Your task to perform on an android device: install app "Spotify: Music and Podcasts" Image 0: 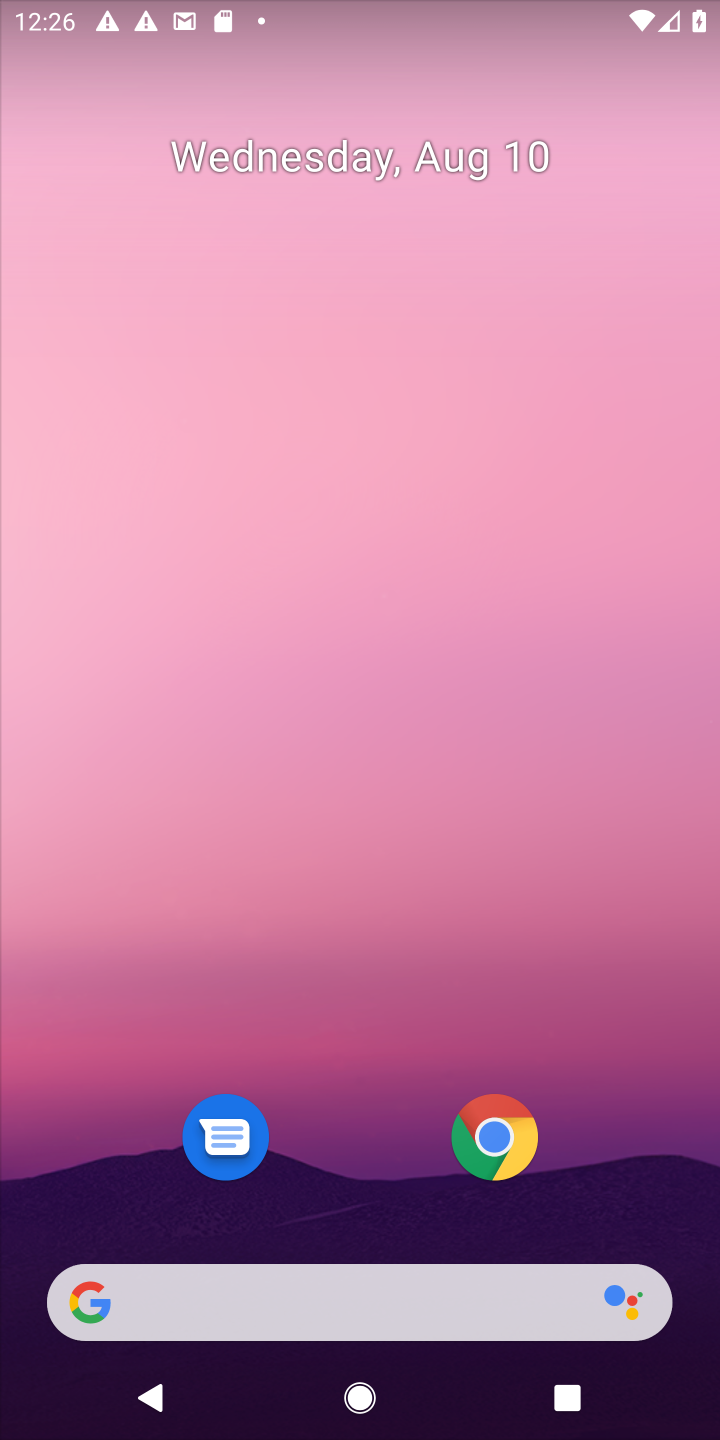
Step 0: drag from (371, 1211) to (421, 312)
Your task to perform on an android device: install app "Spotify: Music and Podcasts" Image 1: 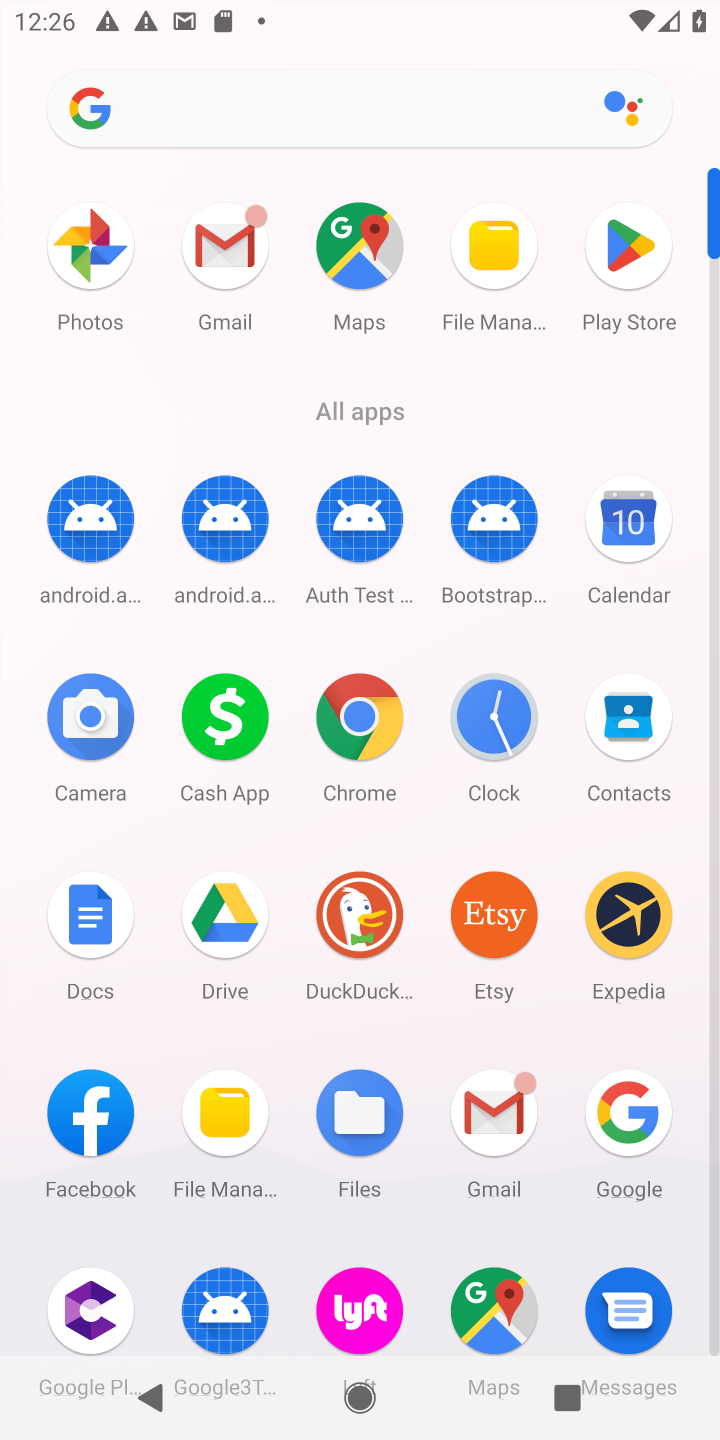
Step 1: click (635, 249)
Your task to perform on an android device: install app "Spotify: Music and Podcasts" Image 2: 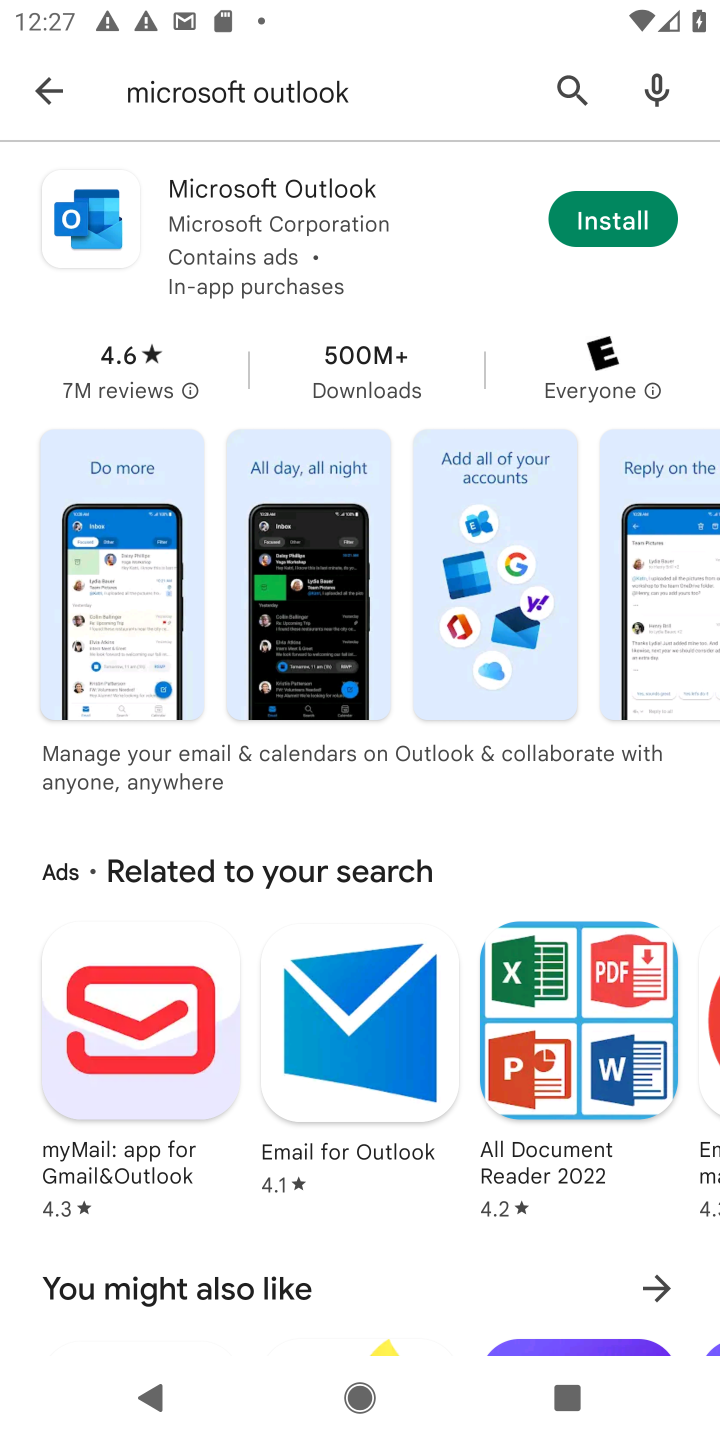
Step 2: click (560, 94)
Your task to perform on an android device: install app "Spotify: Music and Podcasts" Image 3: 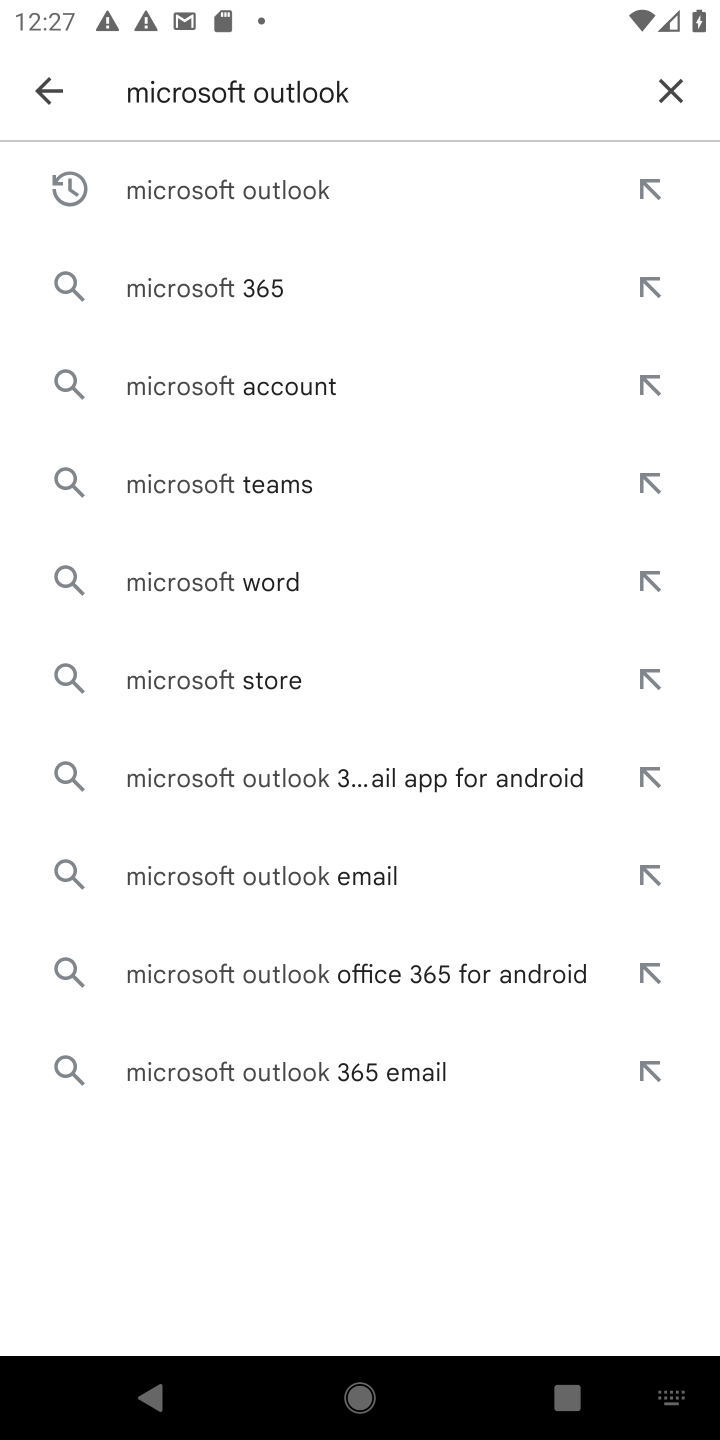
Step 3: click (671, 100)
Your task to perform on an android device: install app "Spotify: Music and Podcasts" Image 4: 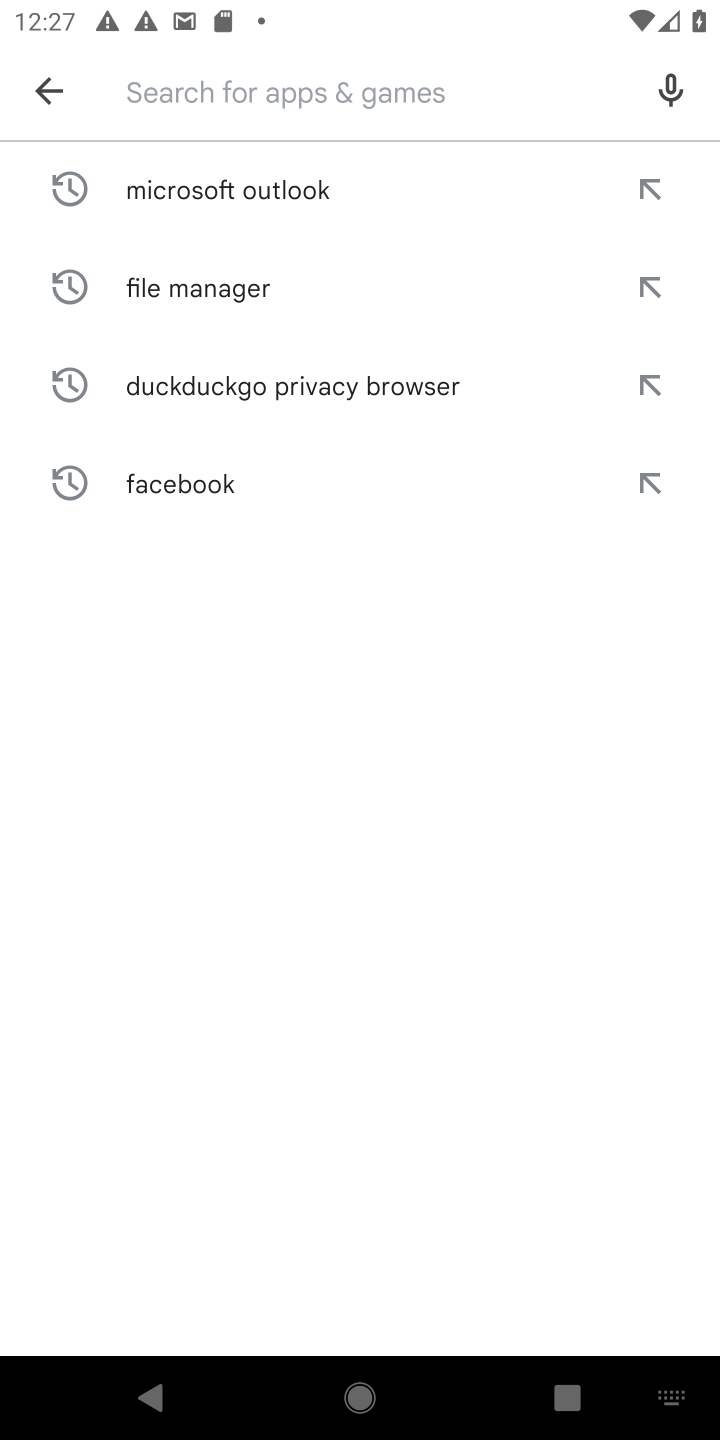
Step 4: type "Spotify: Music and Podcasts"
Your task to perform on an android device: install app "Spotify: Music and Podcasts" Image 5: 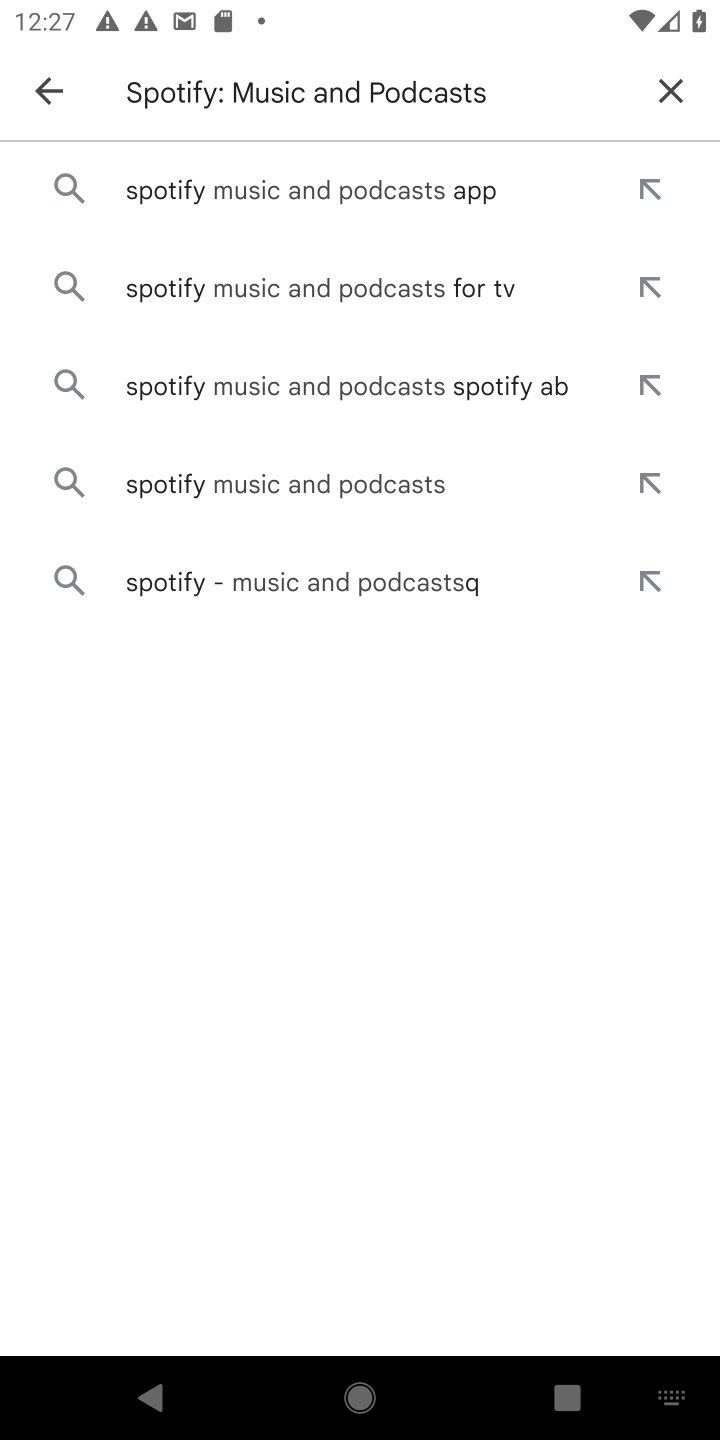
Step 5: click (388, 199)
Your task to perform on an android device: install app "Spotify: Music and Podcasts" Image 6: 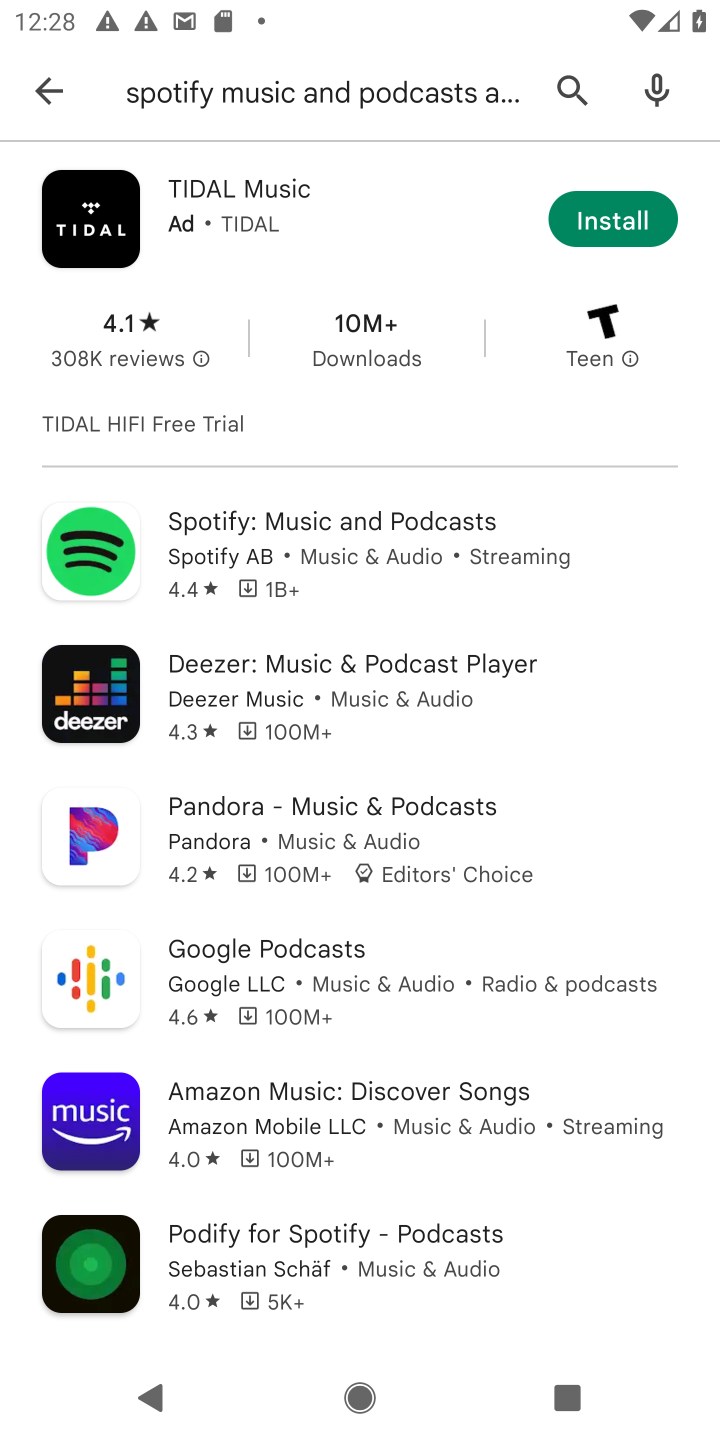
Step 6: click (315, 547)
Your task to perform on an android device: install app "Spotify: Music and Podcasts" Image 7: 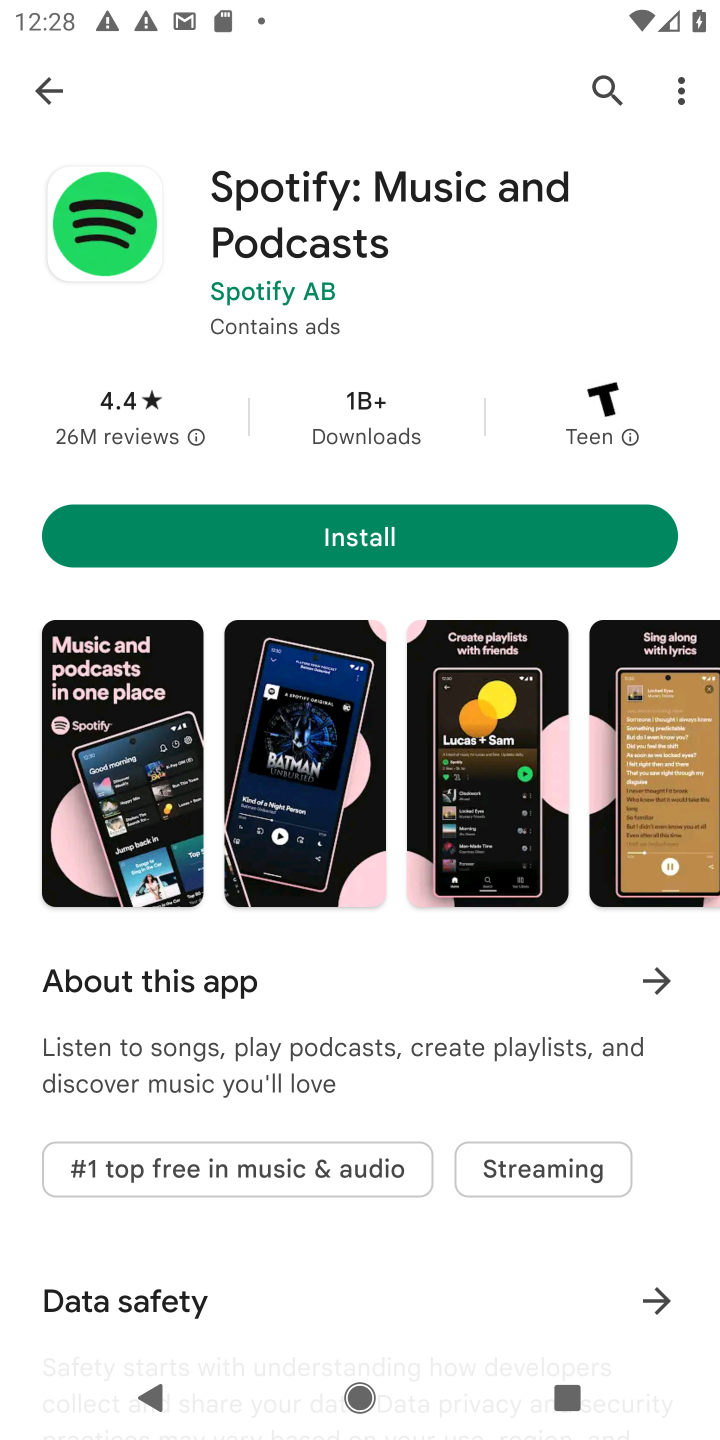
Step 7: click (366, 536)
Your task to perform on an android device: install app "Spotify: Music and Podcasts" Image 8: 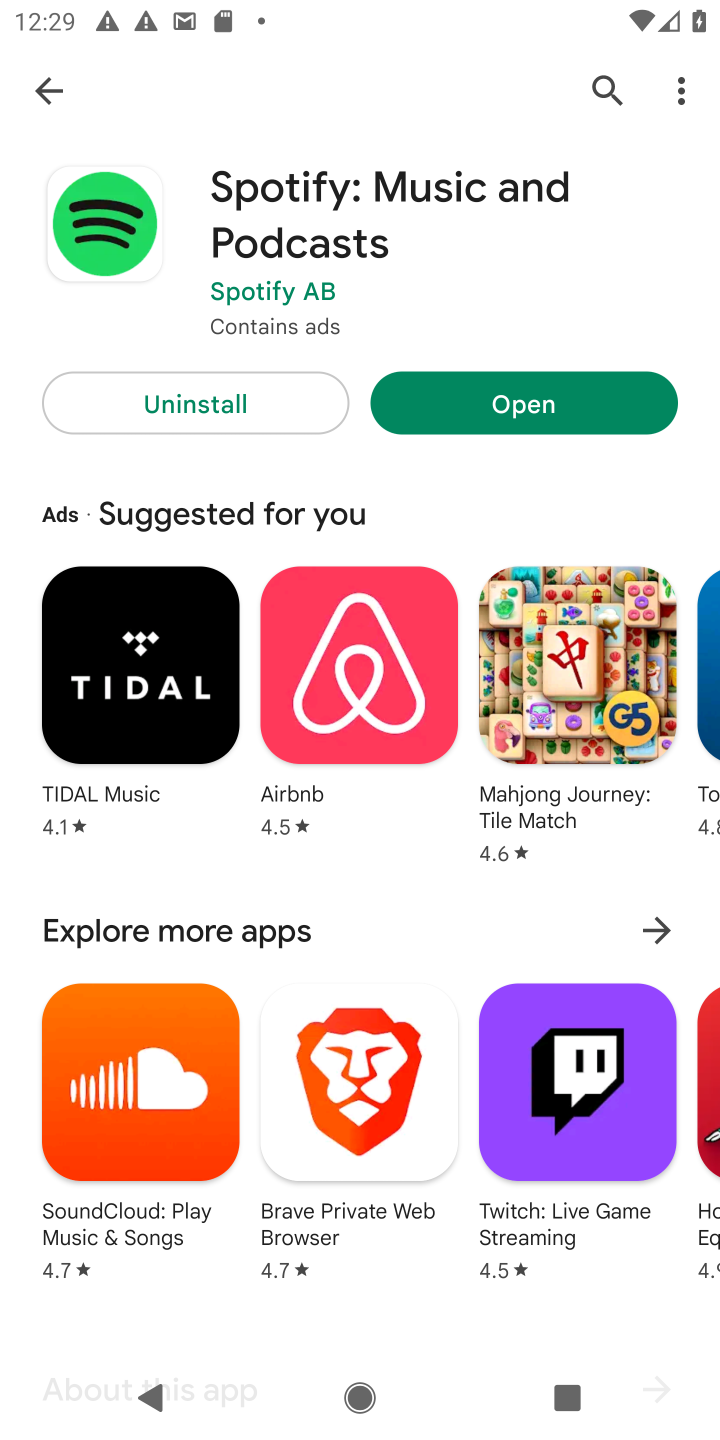
Step 8: click (533, 410)
Your task to perform on an android device: install app "Spotify: Music and Podcasts" Image 9: 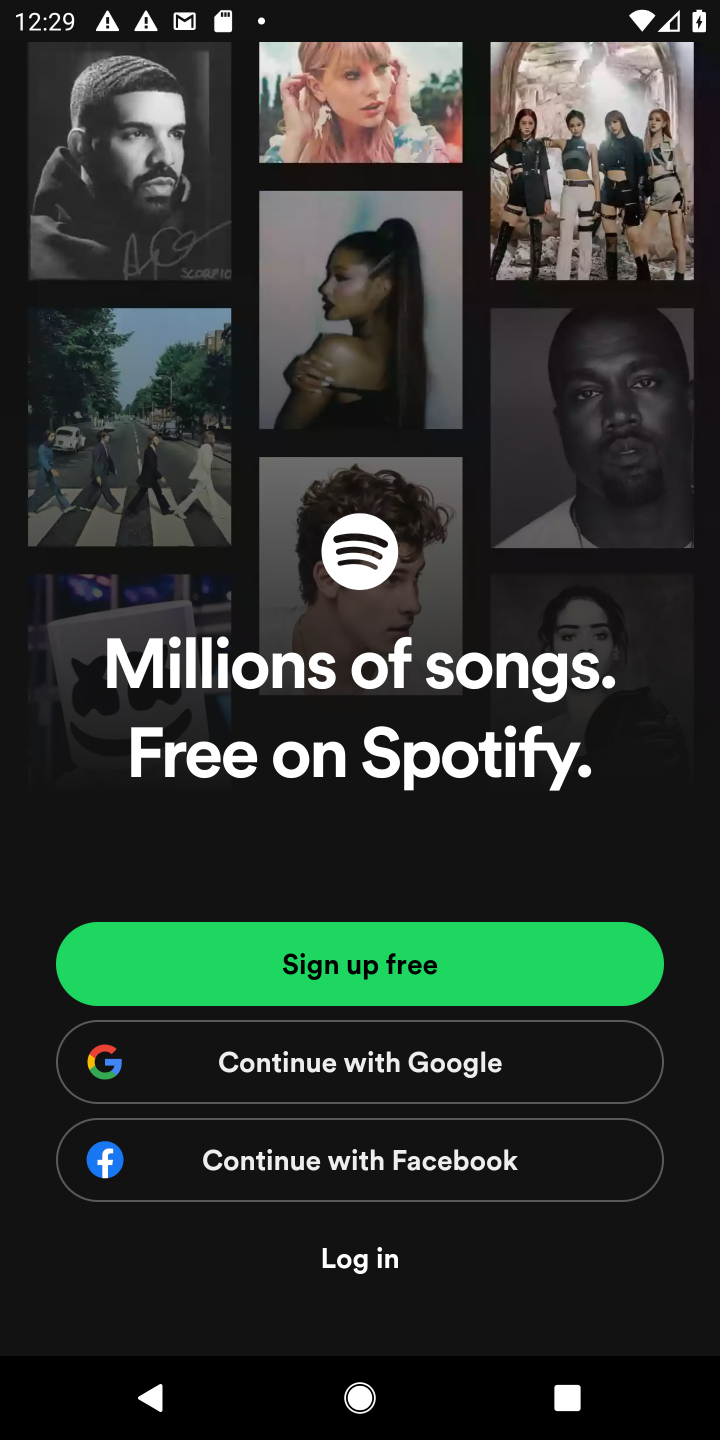
Step 9: click (439, 1071)
Your task to perform on an android device: install app "Spotify: Music and Podcasts" Image 10: 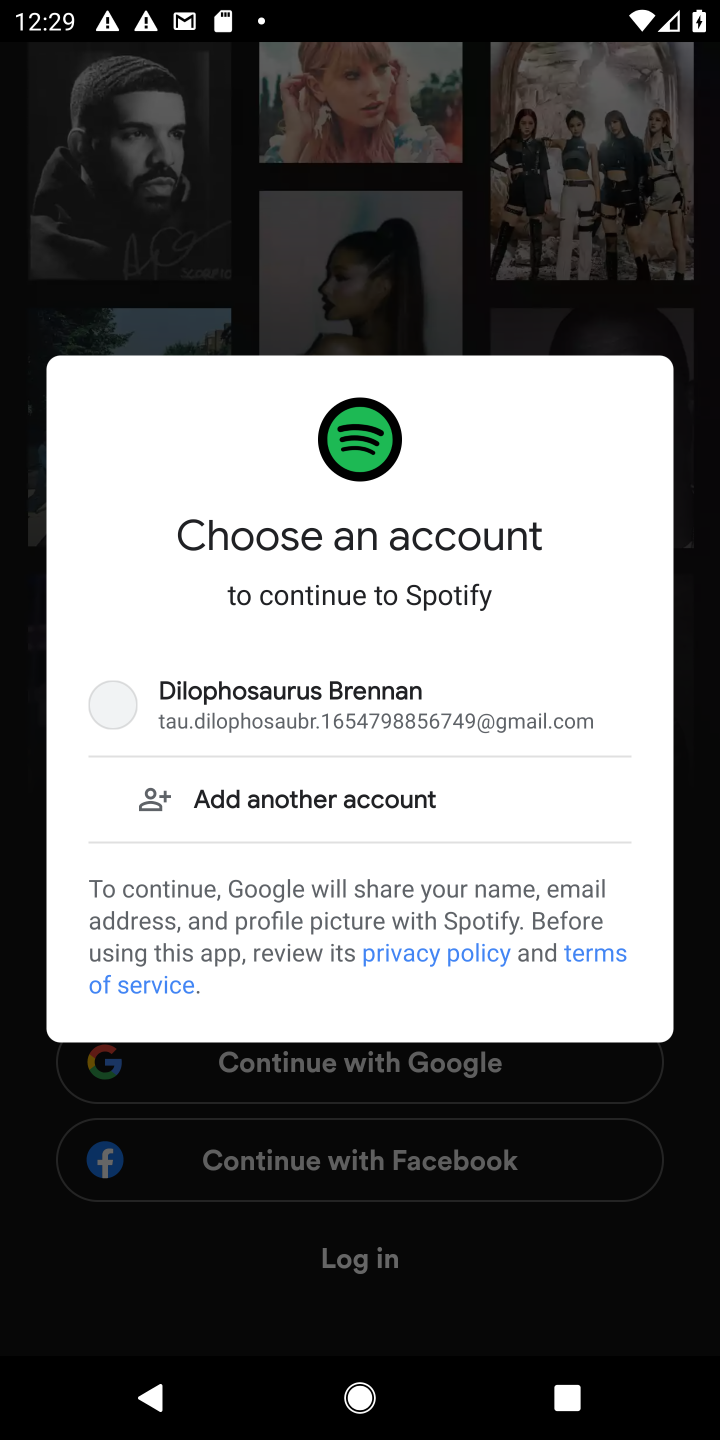
Step 10: click (258, 721)
Your task to perform on an android device: install app "Spotify: Music and Podcasts" Image 11: 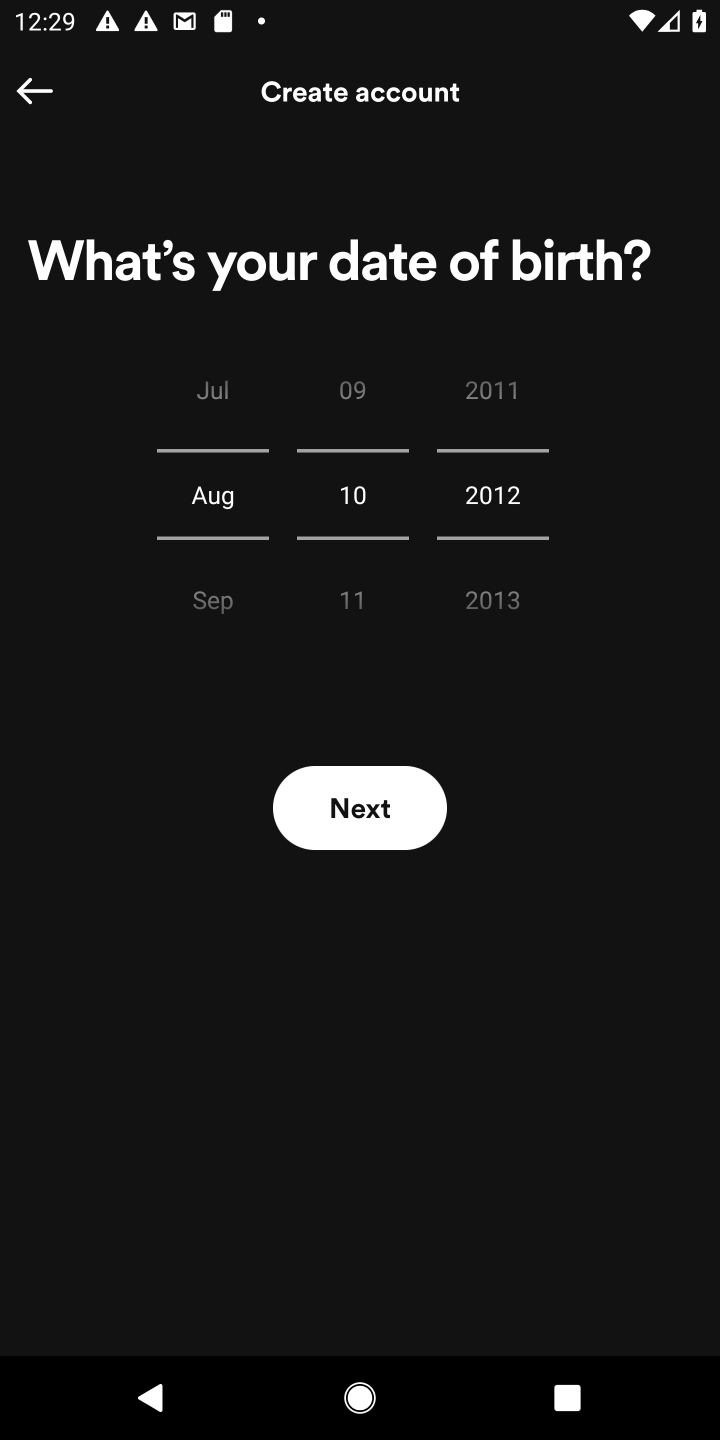
Step 11: task complete